Your task to perform on an android device: Open ESPN.com Image 0: 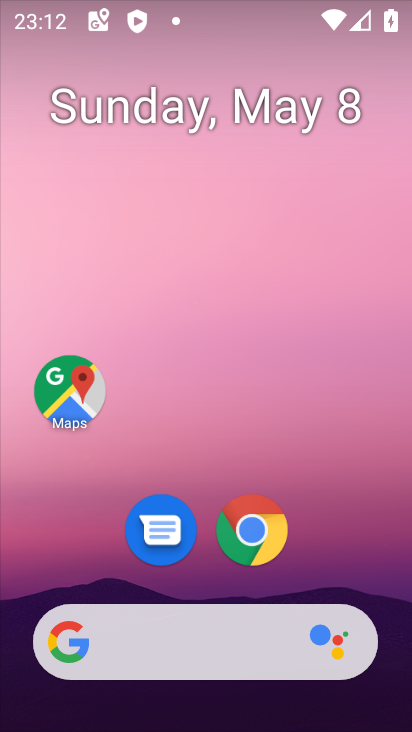
Step 0: drag from (368, 567) to (363, 233)
Your task to perform on an android device: Open ESPN.com Image 1: 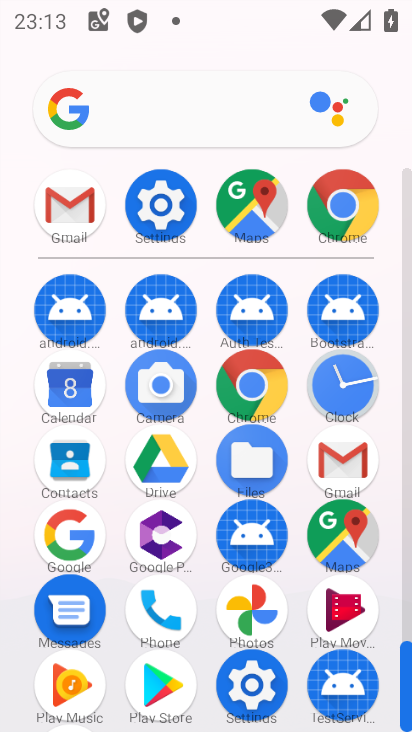
Step 1: click (241, 382)
Your task to perform on an android device: Open ESPN.com Image 2: 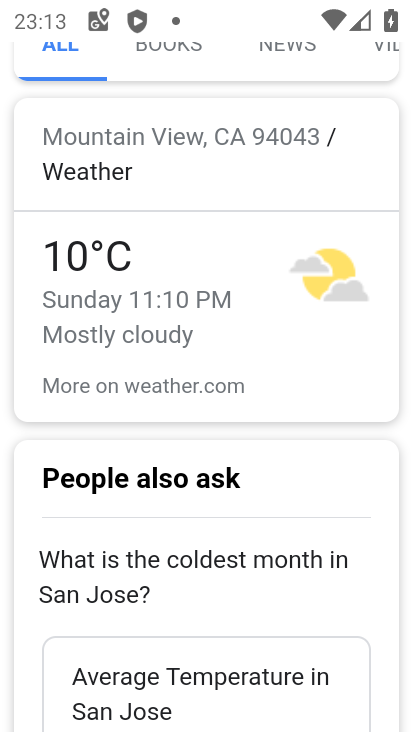
Step 2: drag from (267, 282) to (267, 572)
Your task to perform on an android device: Open ESPN.com Image 3: 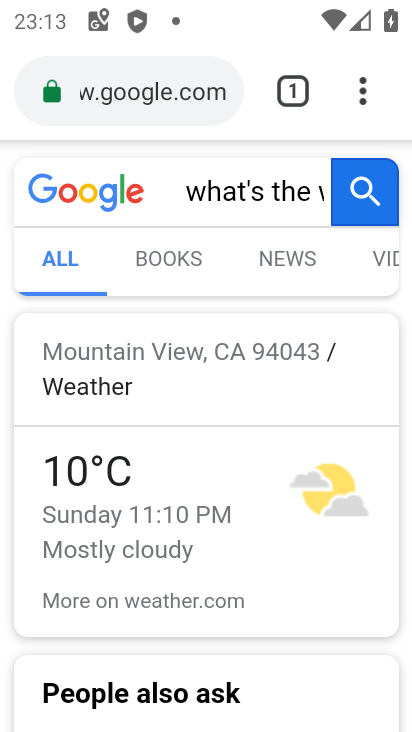
Step 3: click (173, 99)
Your task to perform on an android device: Open ESPN.com Image 4: 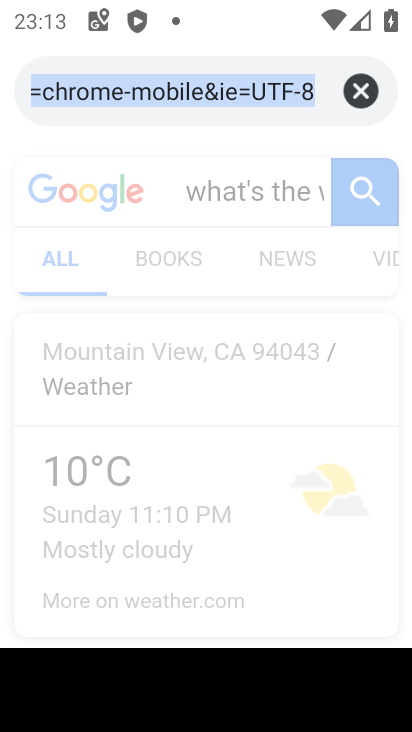
Step 4: click (355, 94)
Your task to perform on an android device: Open ESPN.com Image 5: 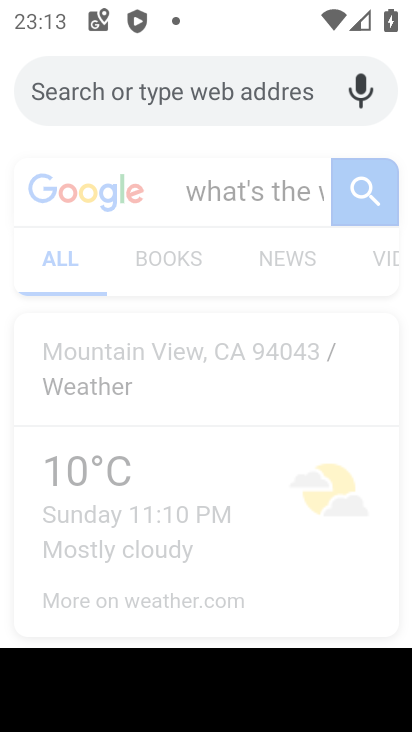
Step 5: type "espn.com"
Your task to perform on an android device: Open ESPN.com Image 6: 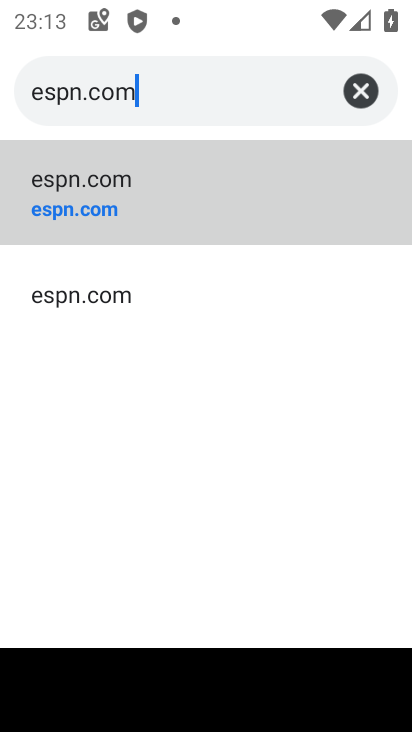
Step 6: click (121, 206)
Your task to perform on an android device: Open ESPN.com Image 7: 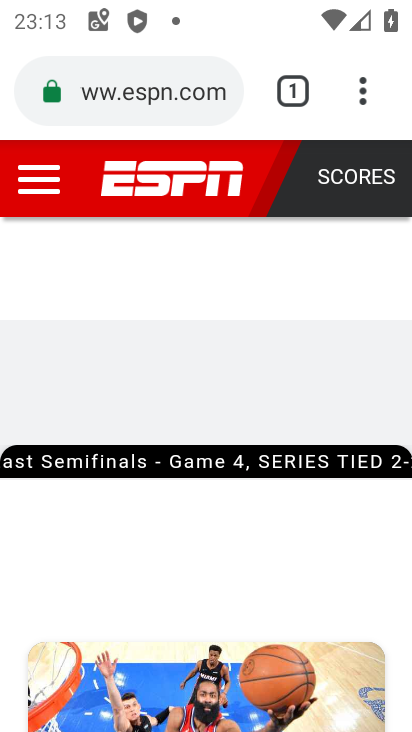
Step 7: task complete